Your task to perform on an android device: See recent photos Image 0: 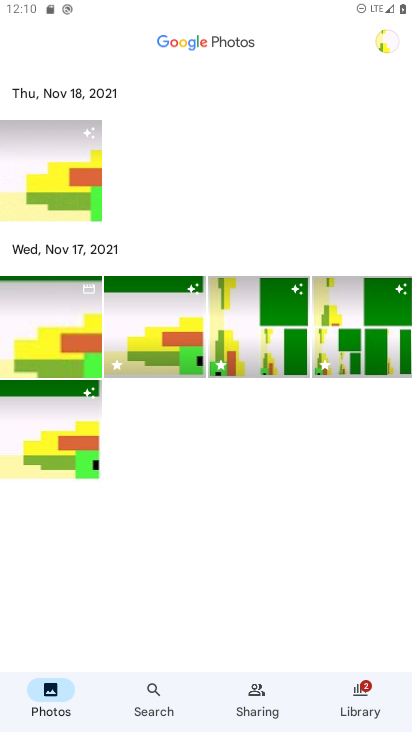
Step 0: press home button
Your task to perform on an android device: See recent photos Image 1: 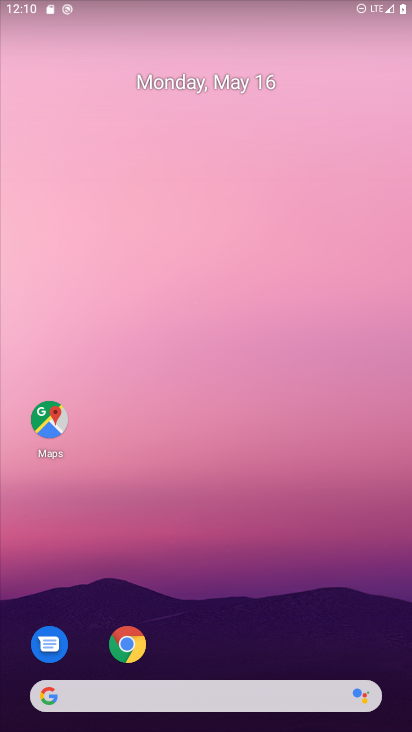
Step 1: drag from (194, 710) to (276, 308)
Your task to perform on an android device: See recent photos Image 2: 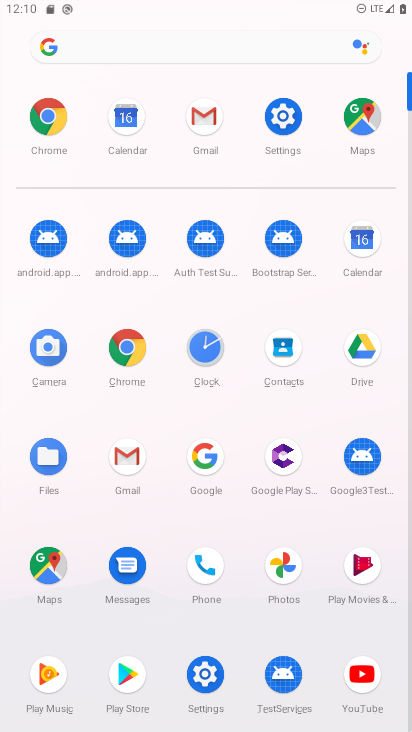
Step 2: click (283, 555)
Your task to perform on an android device: See recent photos Image 3: 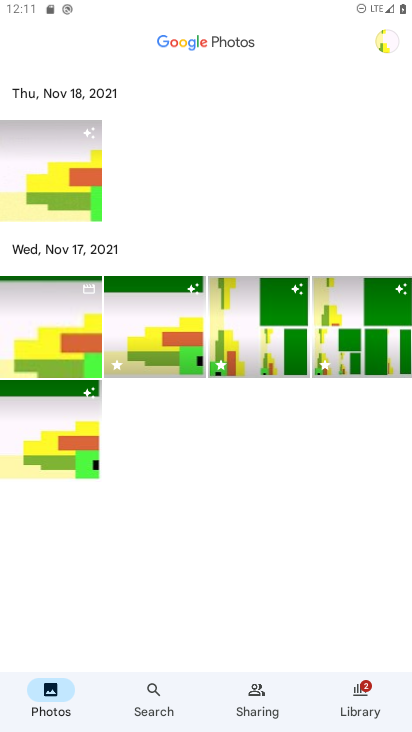
Step 3: task complete